Your task to perform on an android device: clear history in the chrome app Image 0: 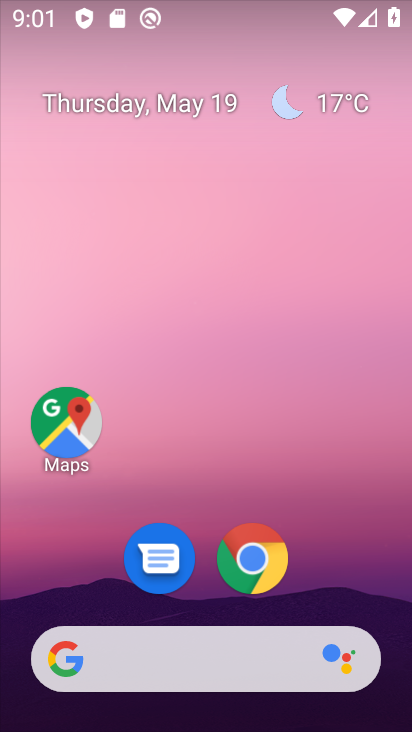
Step 0: click (257, 562)
Your task to perform on an android device: clear history in the chrome app Image 1: 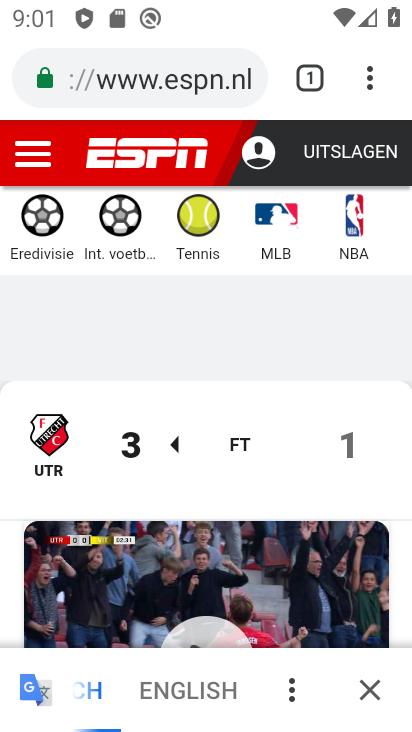
Step 1: click (369, 89)
Your task to perform on an android device: clear history in the chrome app Image 2: 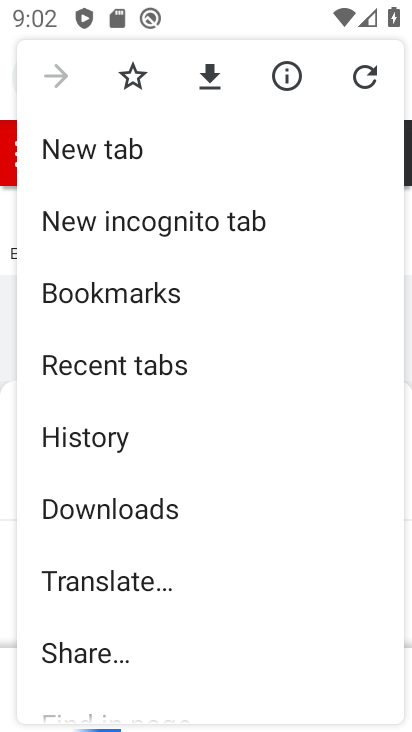
Step 2: click (95, 440)
Your task to perform on an android device: clear history in the chrome app Image 3: 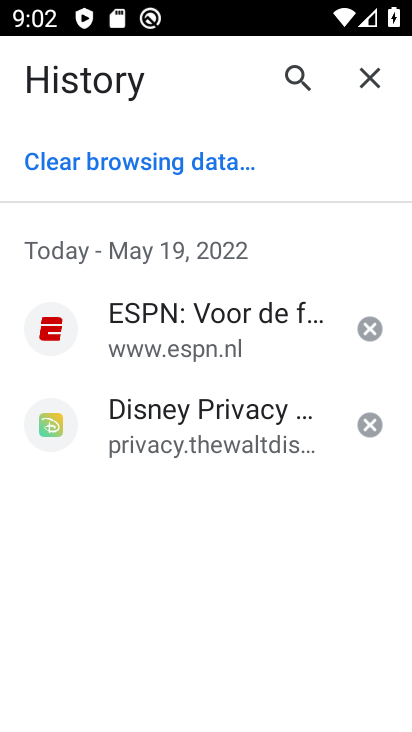
Step 3: click (153, 160)
Your task to perform on an android device: clear history in the chrome app Image 4: 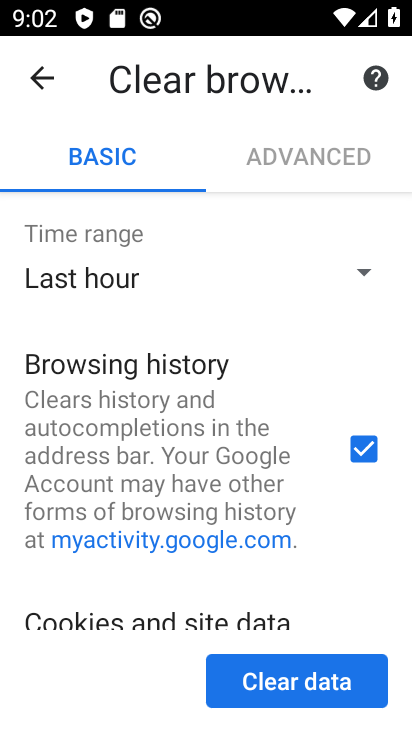
Step 4: drag from (265, 523) to (241, 278)
Your task to perform on an android device: clear history in the chrome app Image 5: 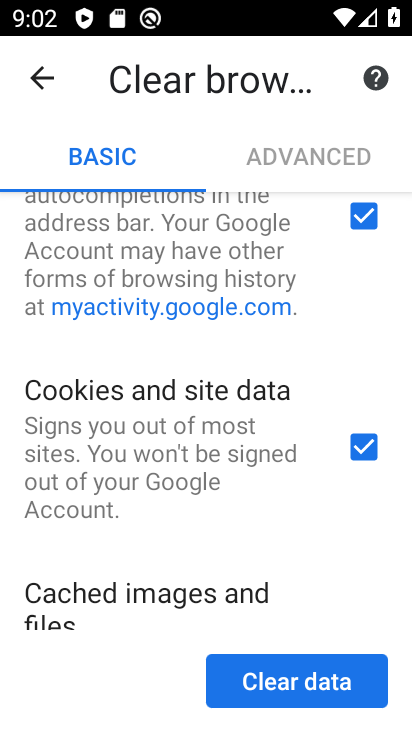
Step 5: click (356, 446)
Your task to perform on an android device: clear history in the chrome app Image 6: 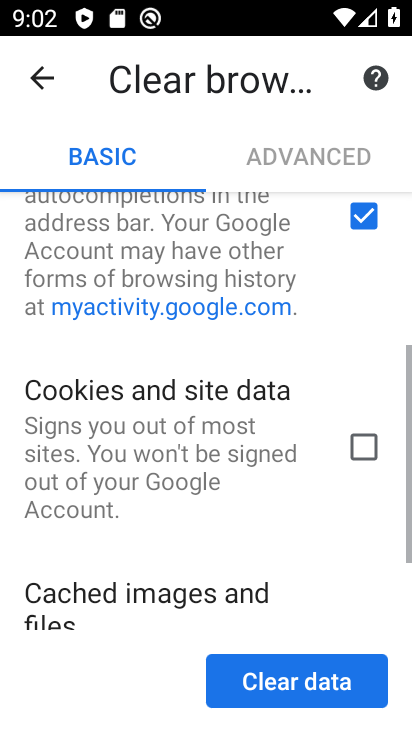
Step 6: drag from (258, 550) to (248, 379)
Your task to perform on an android device: clear history in the chrome app Image 7: 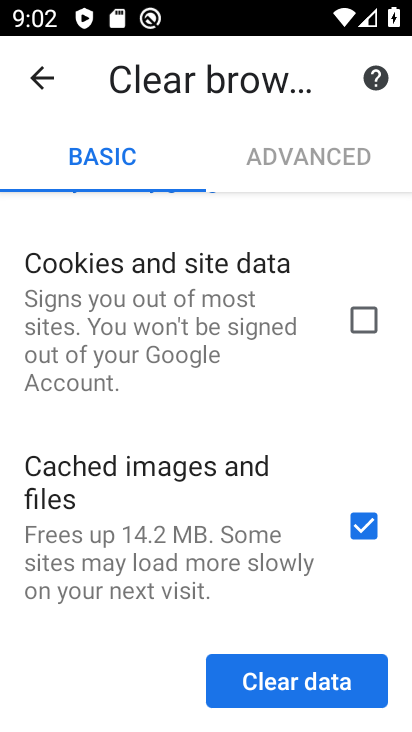
Step 7: click (362, 528)
Your task to perform on an android device: clear history in the chrome app Image 8: 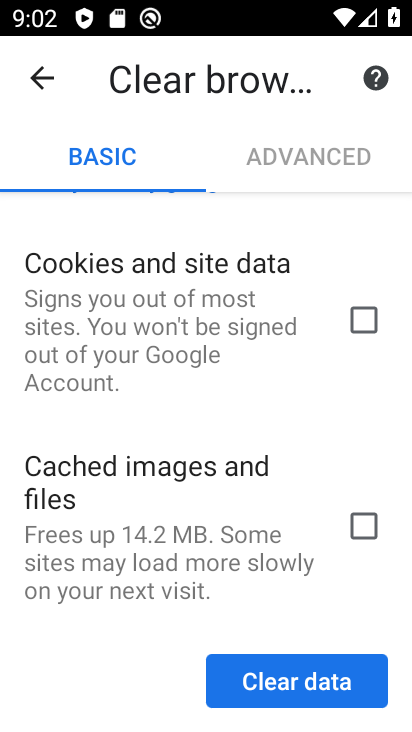
Step 8: drag from (288, 276) to (280, 467)
Your task to perform on an android device: clear history in the chrome app Image 9: 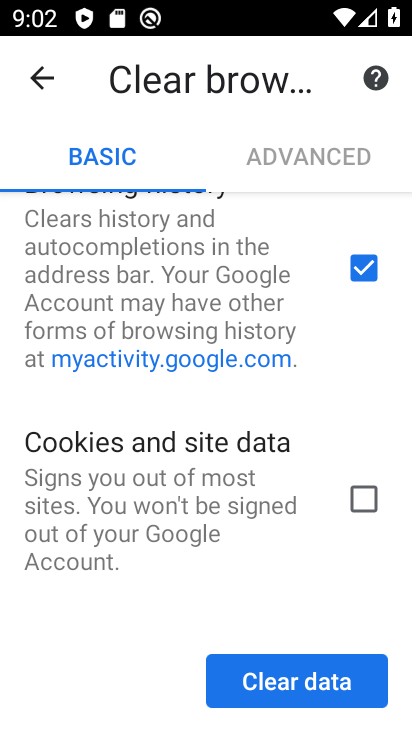
Step 9: click (279, 684)
Your task to perform on an android device: clear history in the chrome app Image 10: 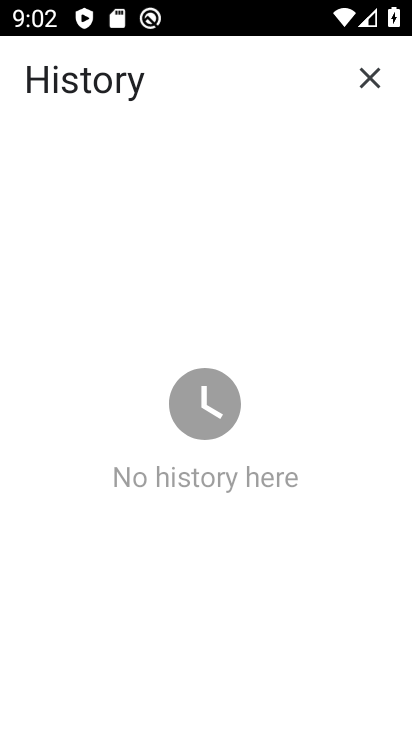
Step 10: task complete